Your task to perform on an android device: change the clock style Image 0: 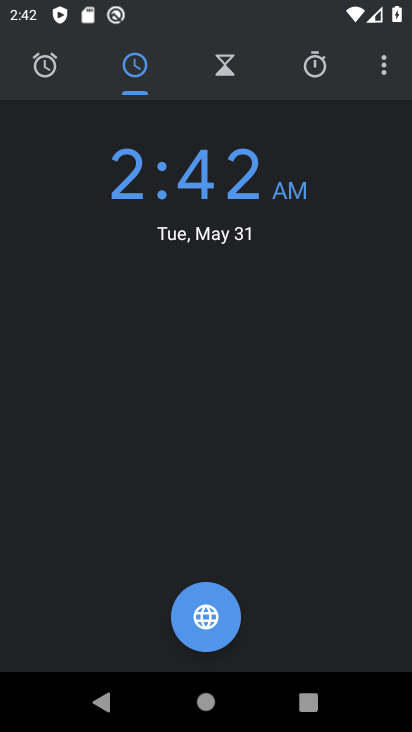
Step 0: click (388, 60)
Your task to perform on an android device: change the clock style Image 1: 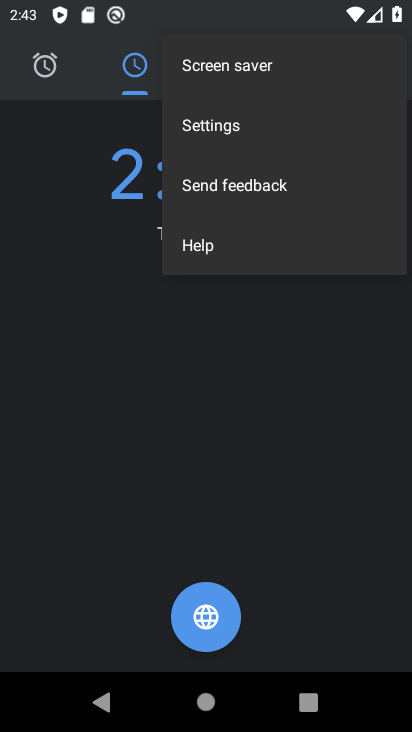
Step 1: click (263, 125)
Your task to perform on an android device: change the clock style Image 2: 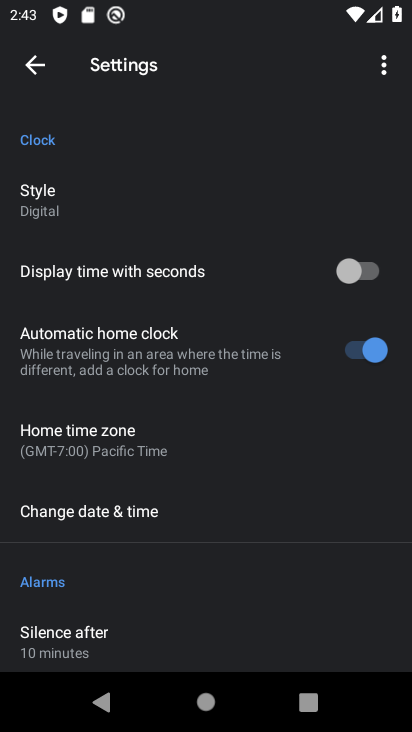
Step 2: click (64, 197)
Your task to perform on an android device: change the clock style Image 3: 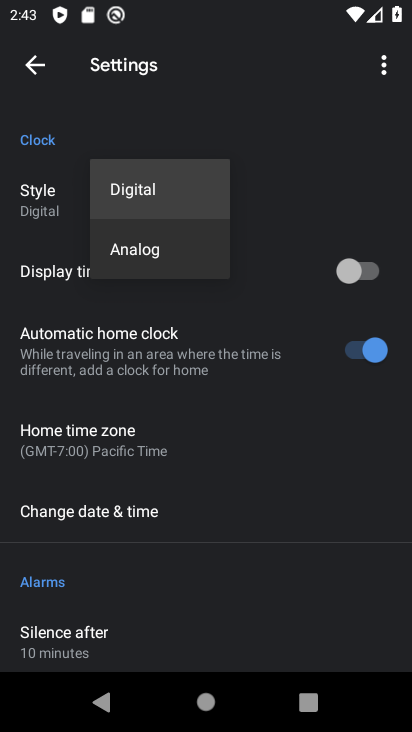
Step 3: click (137, 262)
Your task to perform on an android device: change the clock style Image 4: 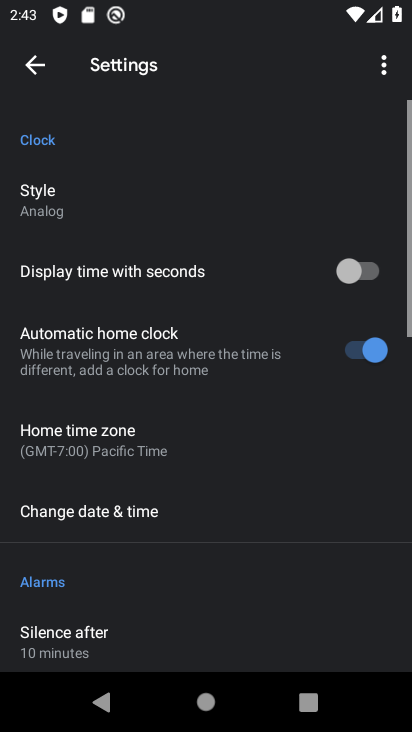
Step 4: task complete